Your task to perform on an android device: turn off javascript in the chrome app Image 0: 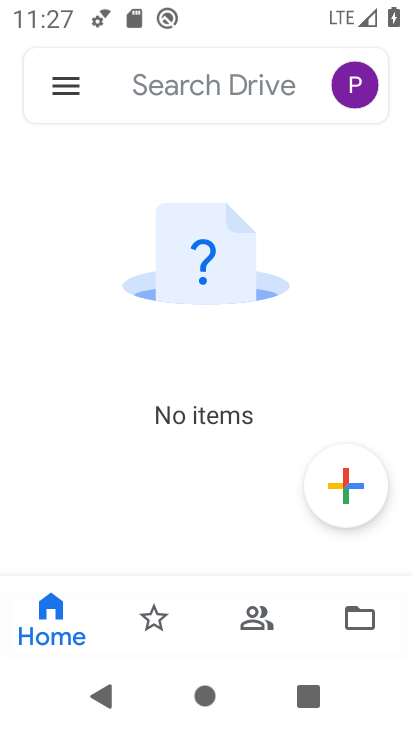
Step 0: press home button
Your task to perform on an android device: turn off javascript in the chrome app Image 1: 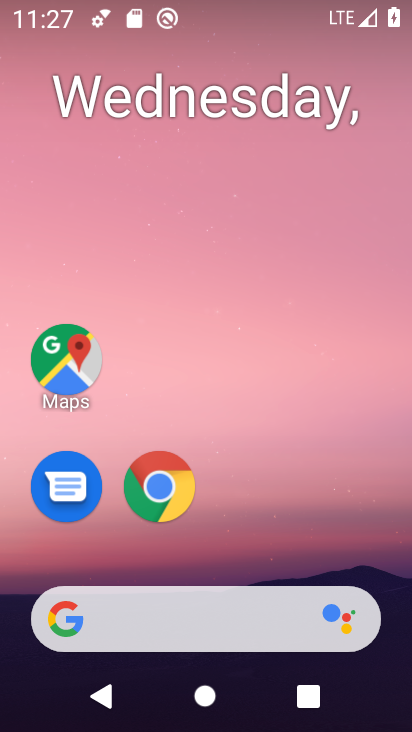
Step 1: drag from (359, 535) to (351, 150)
Your task to perform on an android device: turn off javascript in the chrome app Image 2: 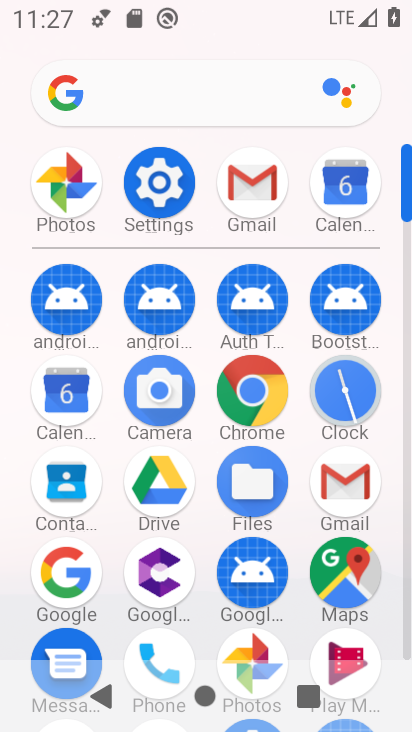
Step 2: click (268, 390)
Your task to perform on an android device: turn off javascript in the chrome app Image 3: 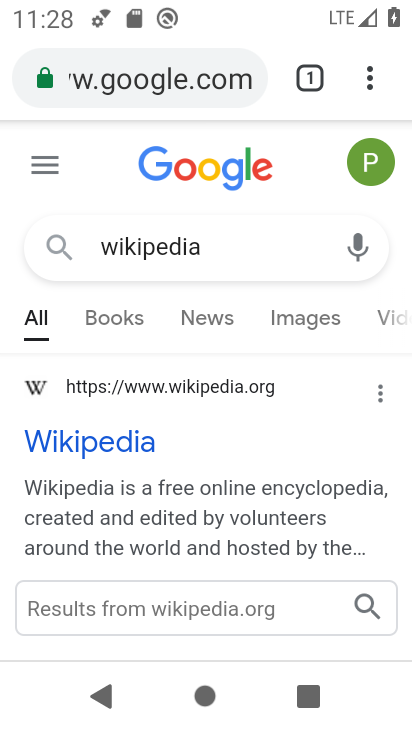
Step 3: click (368, 79)
Your task to perform on an android device: turn off javascript in the chrome app Image 4: 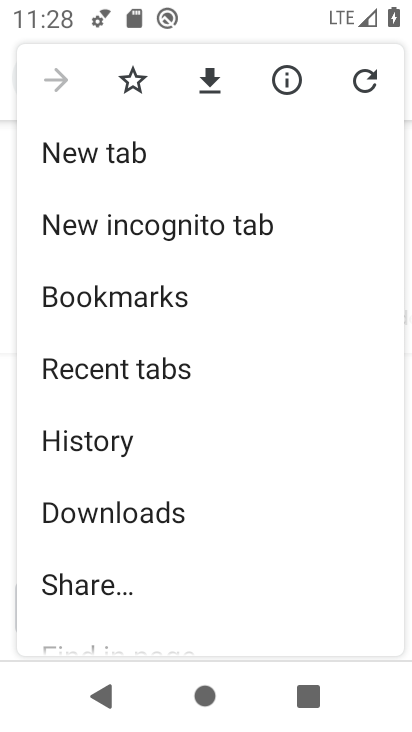
Step 4: drag from (352, 423) to (346, 314)
Your task to perform on an android device: turn off javascript in the chrome app Image 5: 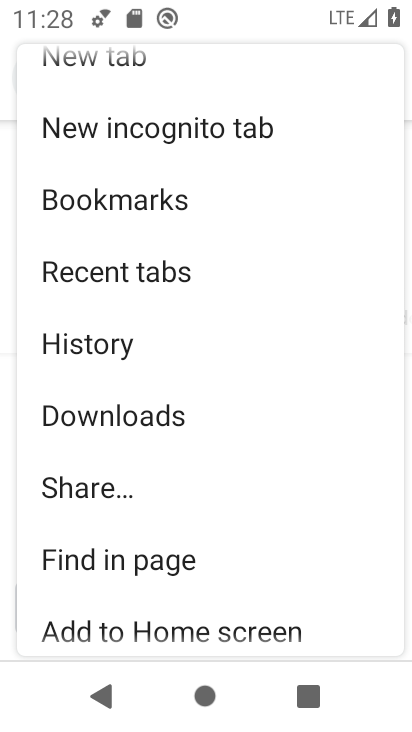
Step 5: drag from (313, 448) to (323, 271)
Your task to perform on an android device: turn off javascript in the chrome app Image 6: 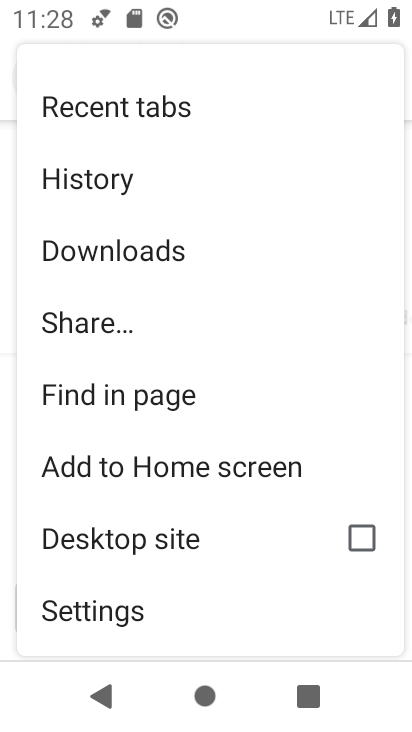
Step 6: drag from (308, 499) to (319, 310)
Your task to perform on an android device: turn off javascript in the chrome app Image 7: 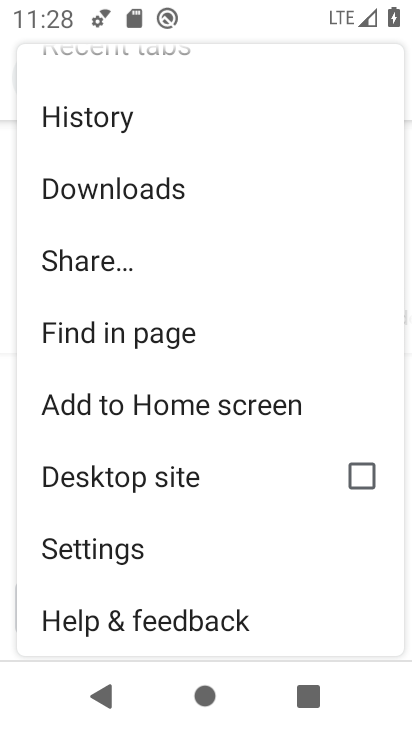
Step 7: click (141, 559)
Your task to perform on an android device: turn off javascript in the chrome app Image 8: 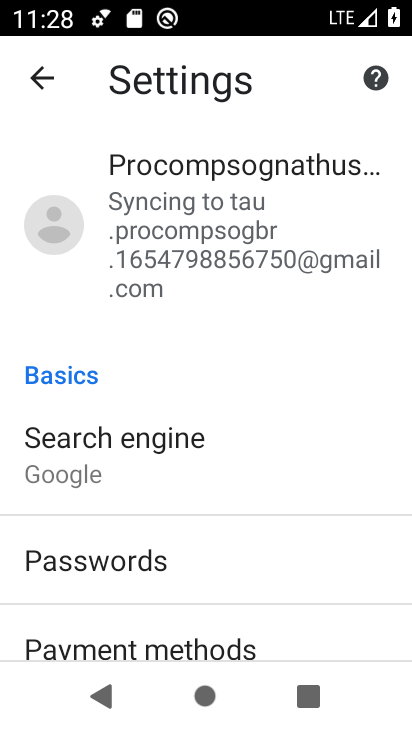
Step 8: drag from (300, 530) to (311, 308)
Your task to perform on an android device: turn off javascript in the chrome app Image 9: 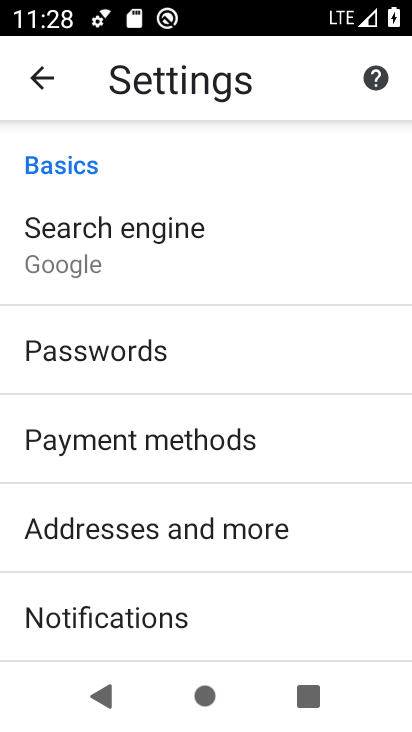
Step 9: drag from (331, 586) to (316, 276)
Your task to perform on an android device: turn off javascript in the chrome app Image 10: 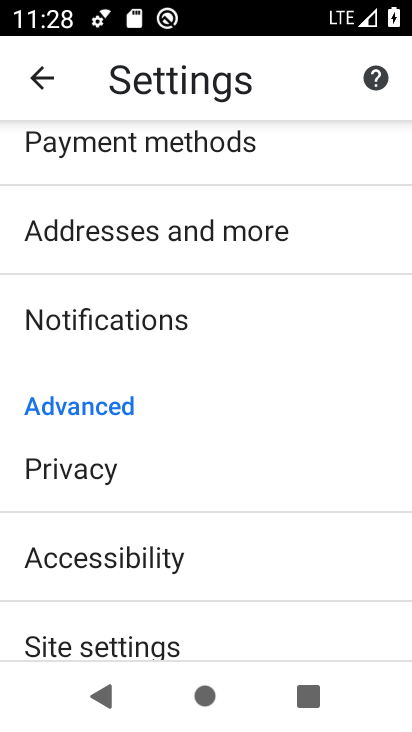
Step 10: drag from (276, 567) to (286, 318)
Your task to perform on an android device: turn off javascript in the chrome app Image 11: 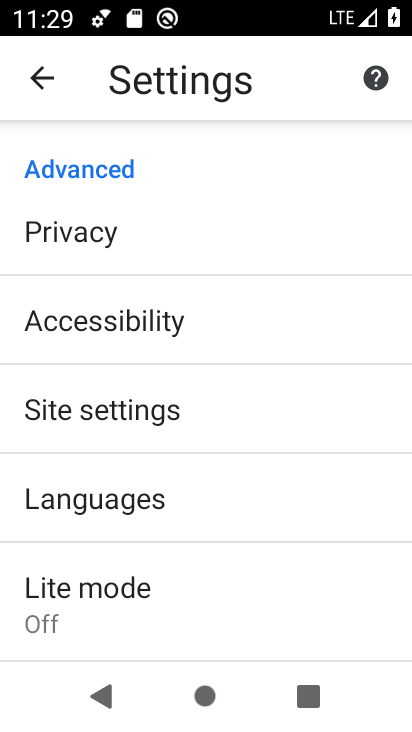
Step 11: click (228, 431)
Your task to perform on an android device: turn off javascript in the chrome app Image 12: 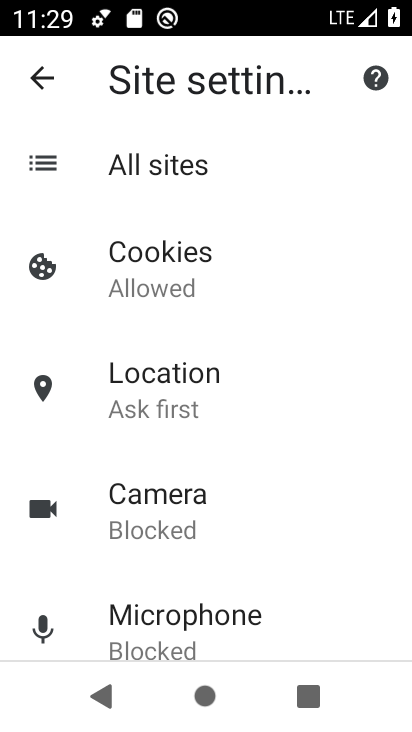
Step 12: drag from (318, 505) to (301, 286)
Your task to perform on an android device: turn off javascript in the chrome app Image 13: 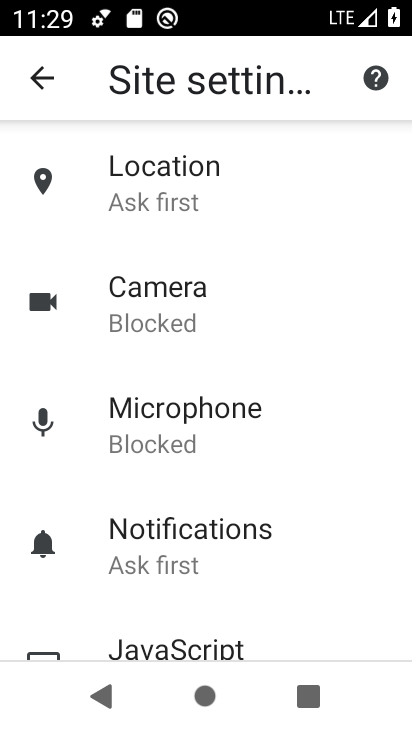
Step 13: drag from (337, 524) to (335, 316)
Your task to perform on an android device: turn off javascript in the chrome app Image 14: 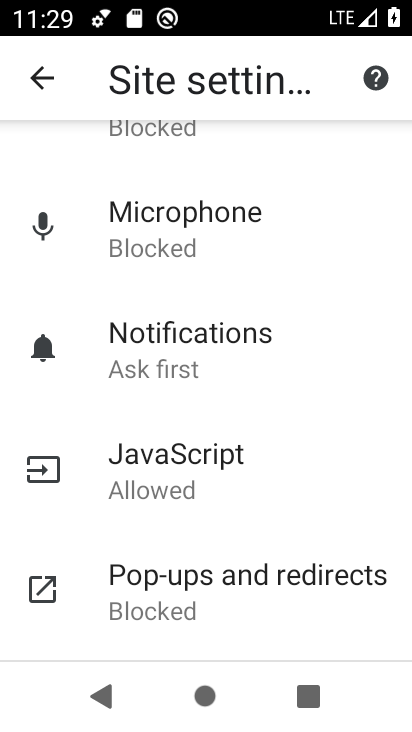
Step 14: click (199, 474)
Your task to perform on an android device: turn off javascript in the chrome app Image 15: 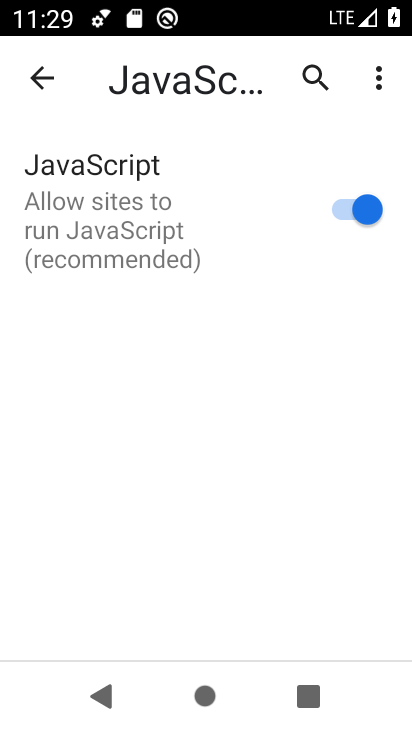
Step 15: click (360, 199)
Your task to perform on an android device: turn off javascript in the chrome app Image 16: 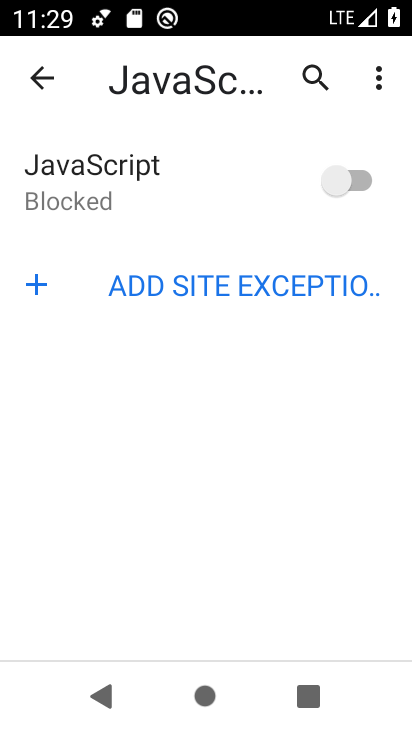
Step 16: press home button
Your task to perform on an android device: turn off javascript in the chrome app Image 17: 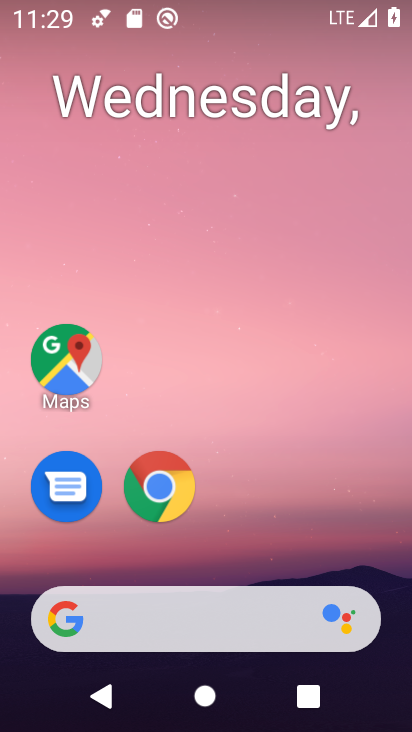
Step 17: drag from (355, 519) to (369, 96)
Your task to perform on an android device: turn off javascript in the chrome app Image 18: 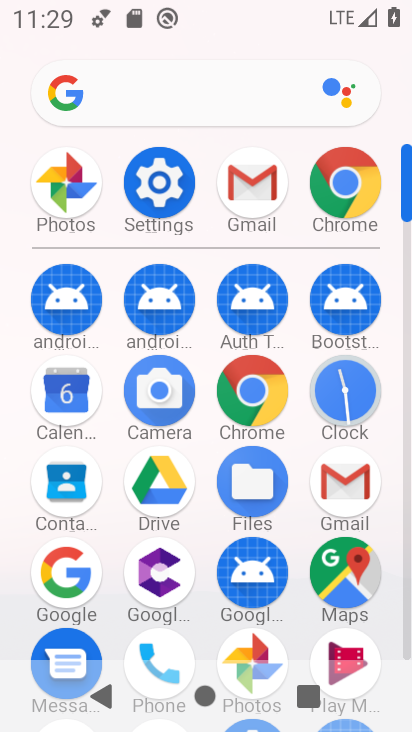
Step 18: click (258, 391)
Your task to perform on an android device: turn off javascript in the chrome app Image 19: 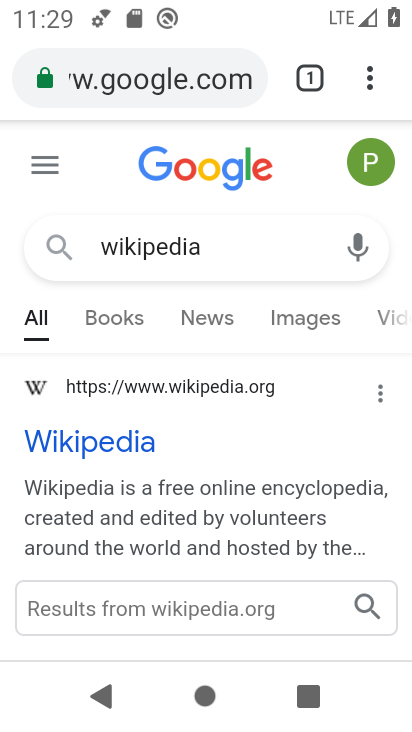
Step 19: click (371, 87)
Your task to perform on an android device: turn off javascript in the chrome app Image 20: 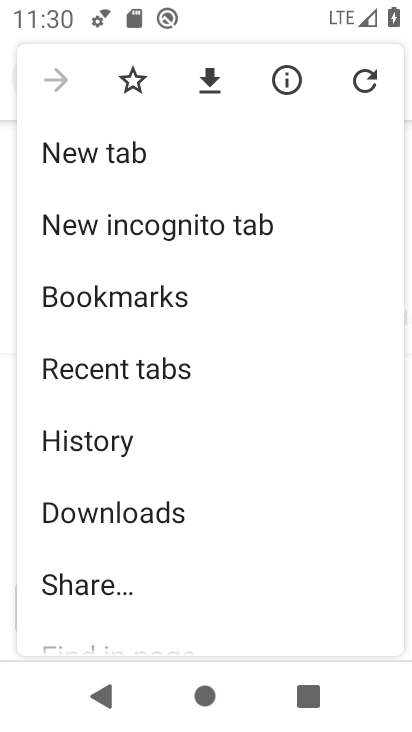
Step 20: drag from (295, 499) to (311, 296)
Your task to perform on an android device: turn off javascript in the chrome app Image 21: 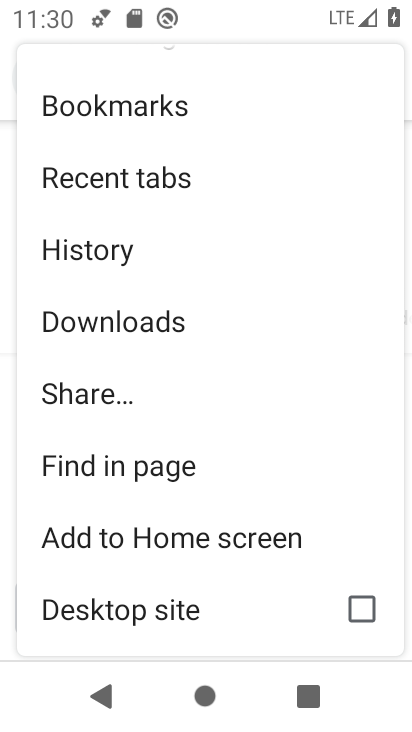
Step 21: drag from (320, 510) to (317, 276)
Your task to perform on an android device: turn off javascript in the chrome app Image 22: 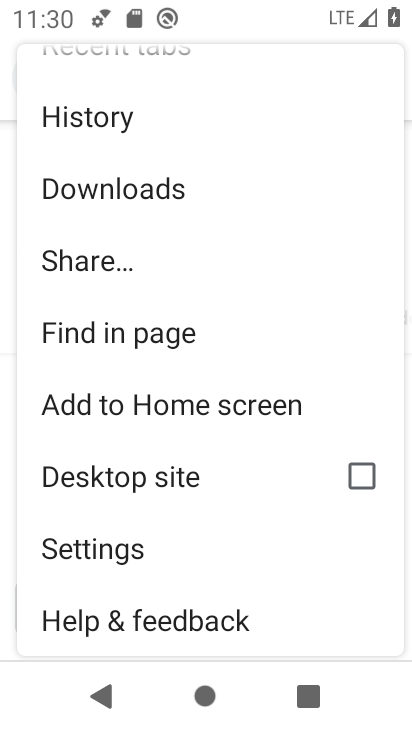
Step 22: drag from (288, 563) to (305, 259)
Your task to perform on an android device: turn off javascript in the chrome app Image 23: 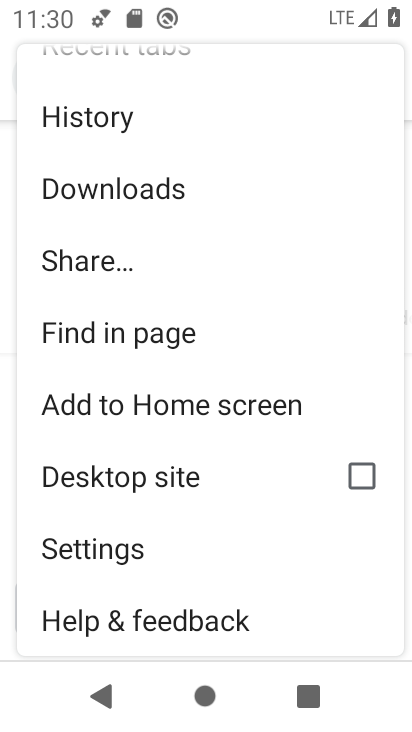
Step 23: drag from (277, 548) to (293, 248)
Your task to perform on an android device: turn off javascript in the chrome app Image 24: 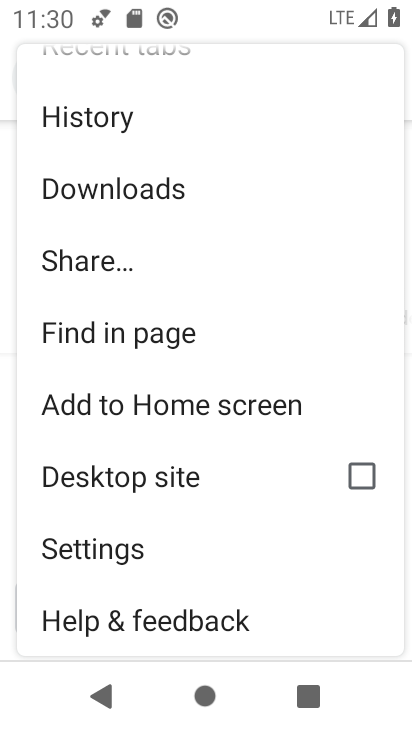
Step 24: click (140, 552)
Your task to perform on an android device: turn off javascript in the chrome app Image 25: 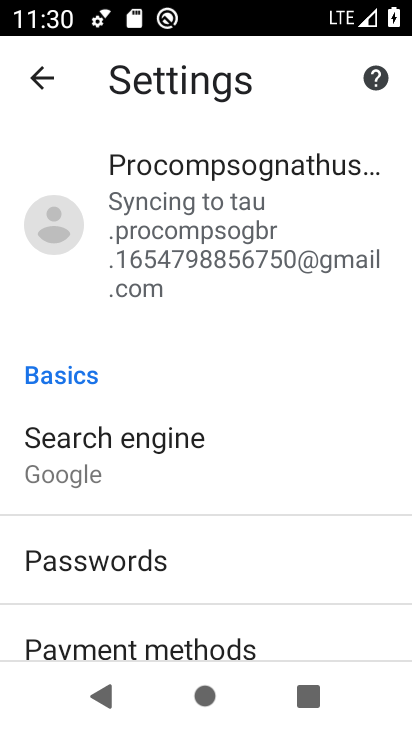
Step 25: drag from (313, 568) to (329, 276)
Your task to perform on an android device: turn off javascript in the chrome app Image 26: 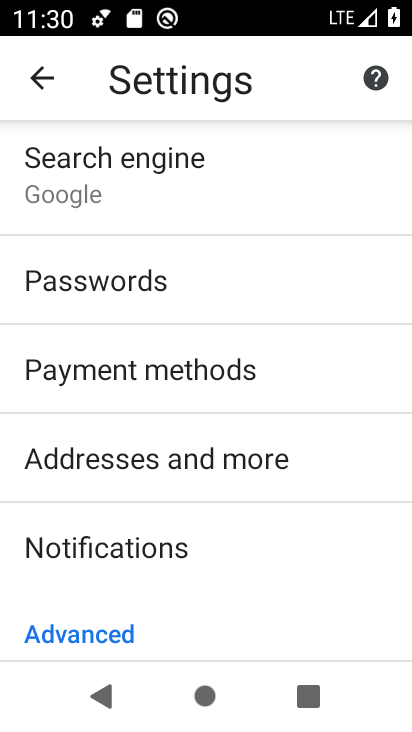
Step 26: drag from (327, 568) to (335, 314)
Your task to perform on an android device: turn off javascript in the chrome app Image 27: 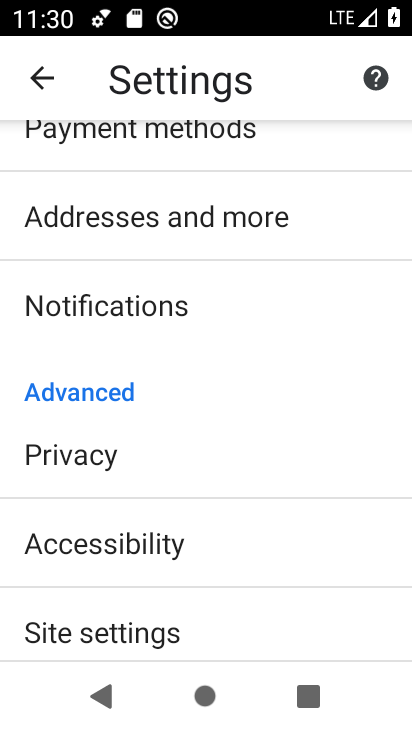
Step 27: drag from (318, 569) to (316, 250)
Your task to perform on an android device: turn off javascript in the chrome app Image 28: 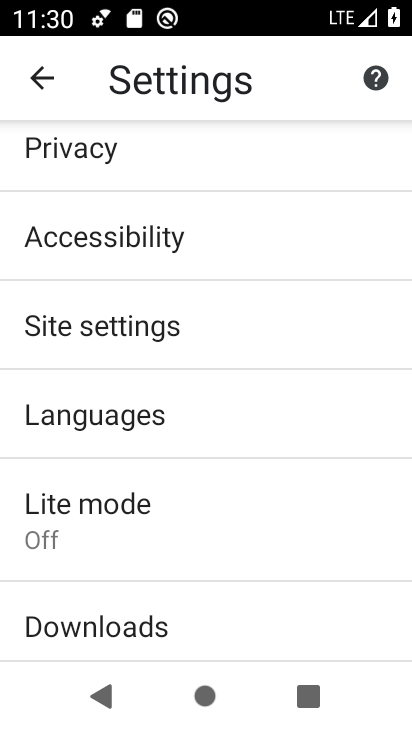
Step 28: drag from (287, 531) to (289, 287)
Your task to perform on an android device: turn off javascript in the chrome app Image 29: 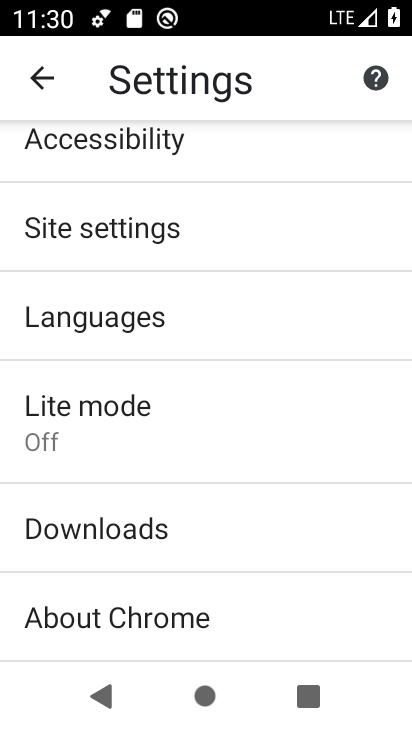
Step 29: drag from (302, 527) to (316, 355)
Your task to perform on an android device: turn off javascript in the chrome app Image 30: 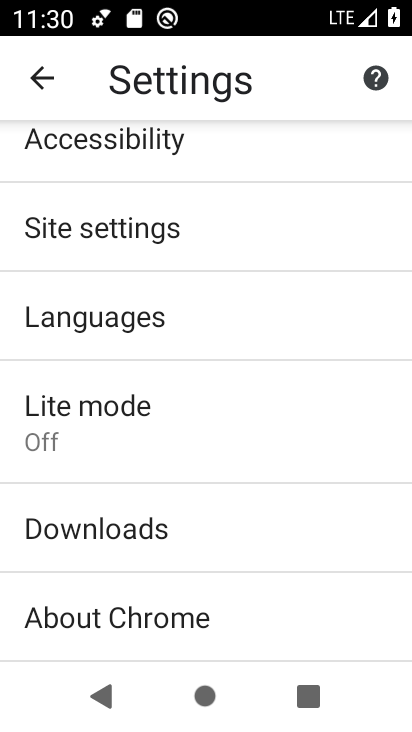
Step 30: click (229, 246)
Your task to perform on an android device: turn off javascript in the chrome app Image 31: 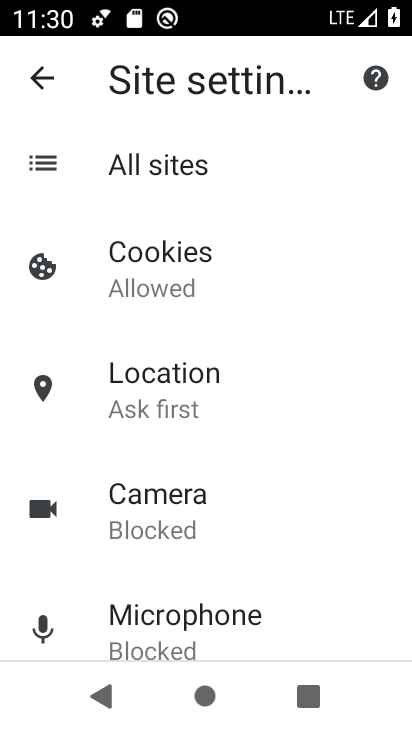
Step 31: drag from (305, 529) to (300, 343)
Your task to perform on an android device: turn off javascript in the chrome app Image 32: 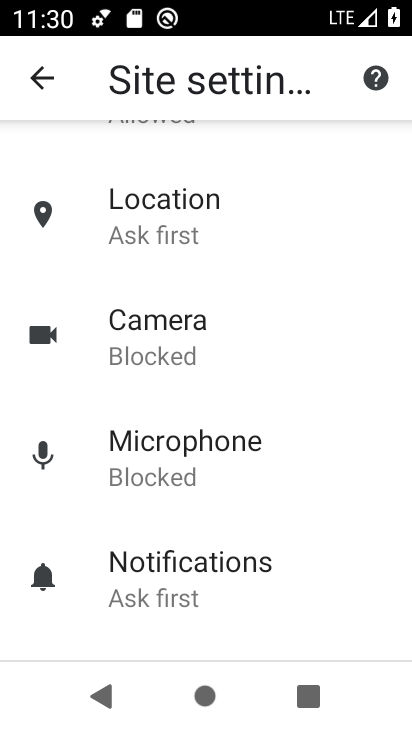
Step 32: drag from (323, 538) to (326, 367)
Your task to perform on an android device: turn off javascript in the chrome app Image 33: 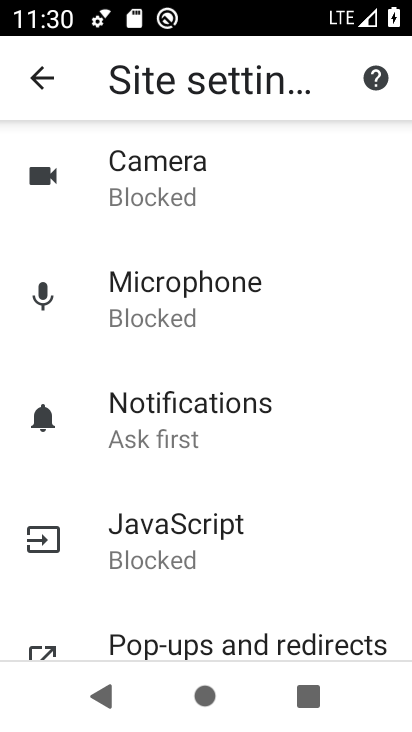
Step 33: drag from (320, 482) to (310, 249)
Your task to perform on an android device: turn off javascript in the chrome app Image 34: 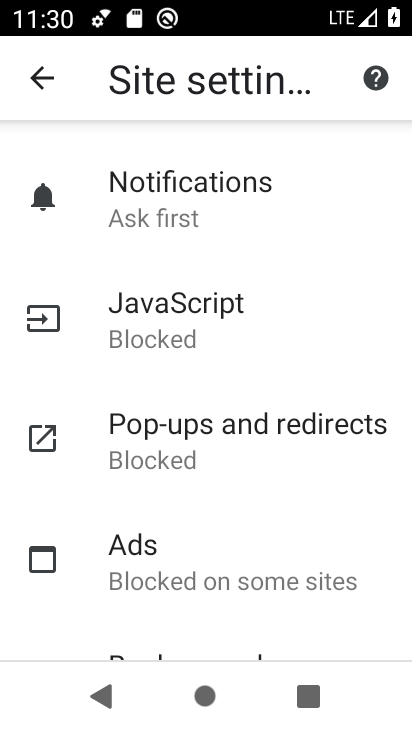
Step 34: click (213, 330)
Your task to perform on an android device: turn off javascript in the chrome app Image 35: 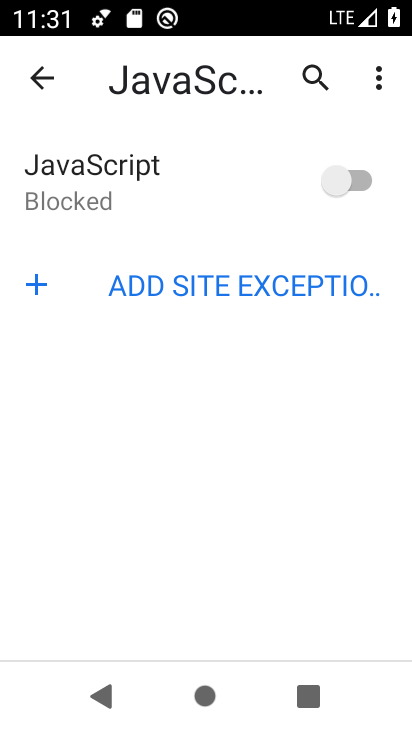
Step 35: task complete